Your task to perform on an android device: Open the stopwatch Image 0: 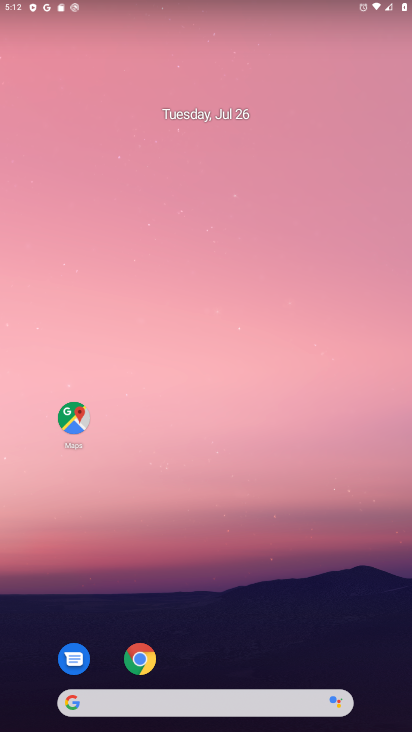
Step 0: press home button
Your task to perform on an android device: Open the stopwatch Image 1: 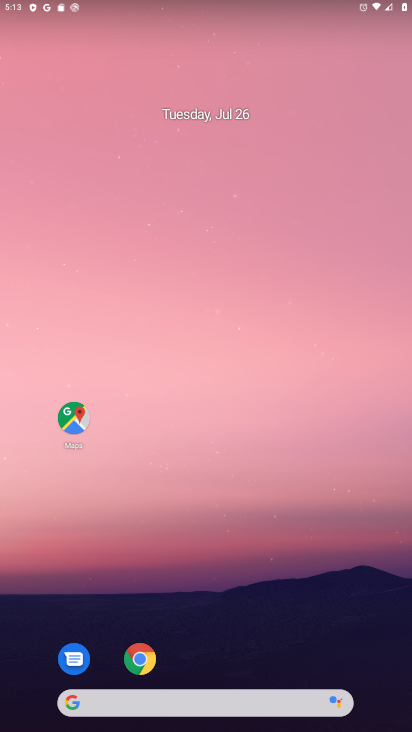
Step 1: drag from (221, 606) to (254, 174)
Your task to perform on an android device: Open the stopwatch Image 2: 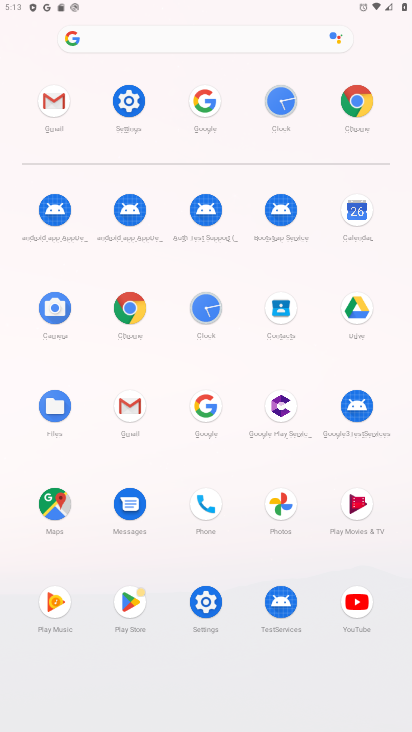
Step 2: click (203, 311)
Your task to perform on an android device: Open the stopwatch Image 3: 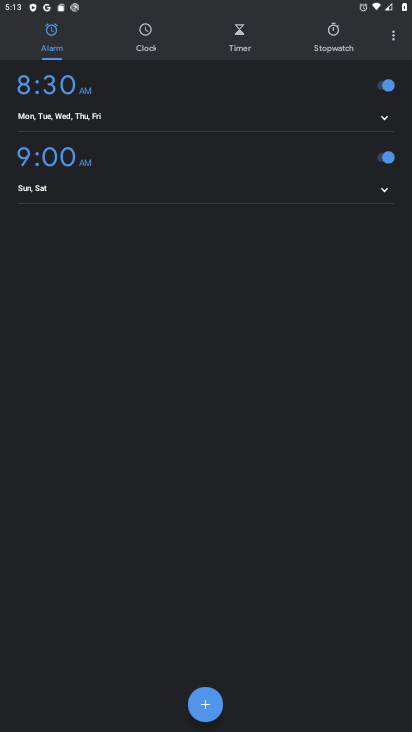
Step 3: click (323, 39)
Your task to perform on an android device: Open the stopwatch Image 4: 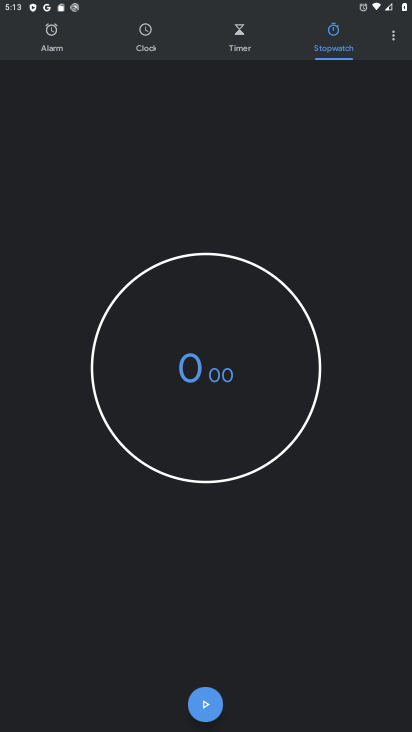
Step 4: click (210, 701)
Your task to perform on an android device: Open the stopwatch Image 5: 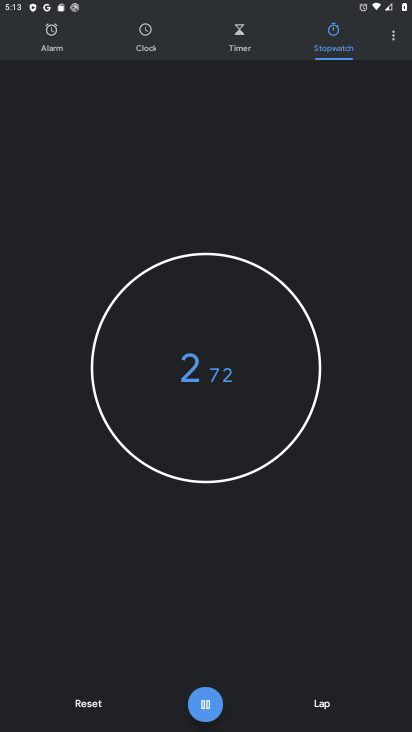
Step 5: task complete